Your task to perform on an android device: turn off wifi Image 0: 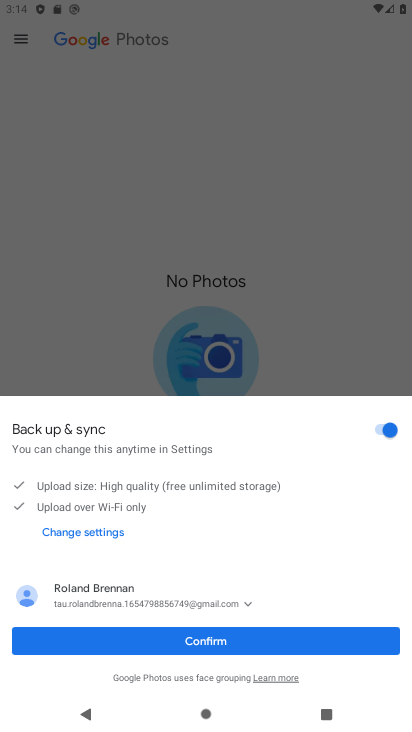
Step 0: press home button
Your task to perform on an android device: turn off wifi Image 1: 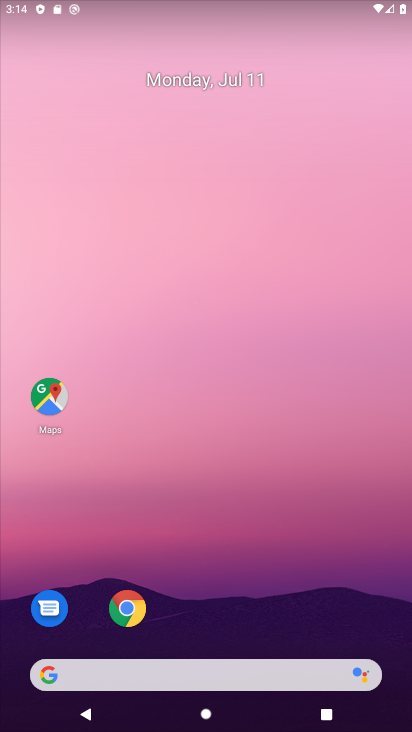
Step 1: drag from (267, 621) to (208, 14)
Your task to perform on an android device: turn off wifi Image 2: 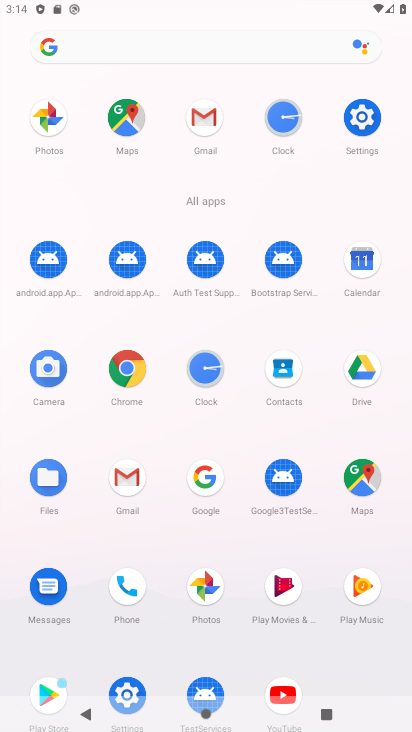
Step 2: click (362, 116)
Your task to perform on an android device: turn off wifi Image 3: 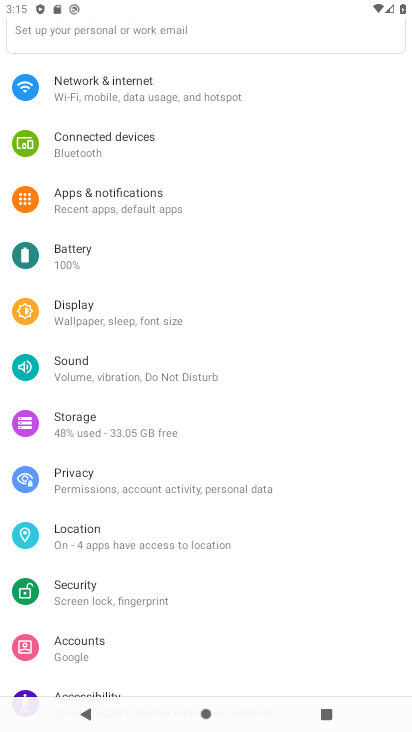
Step 3: click (225, 101)
Your task to perform on an android device: turn off wifi Image 4: 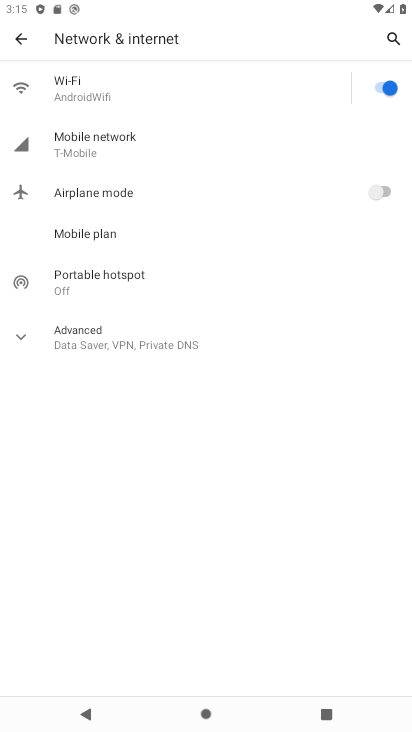
Step 4: click (382, 88)
Your task to perform on an android device: turn off wifi Image 5: 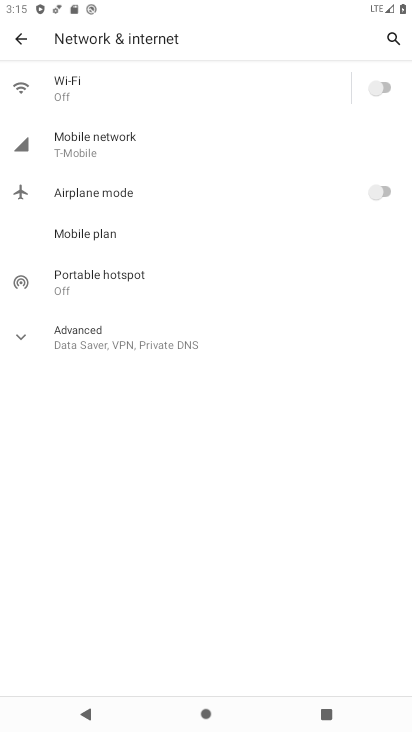
Step 5: task complete